Your task to perform on an android device: Go to location settings Image 0: 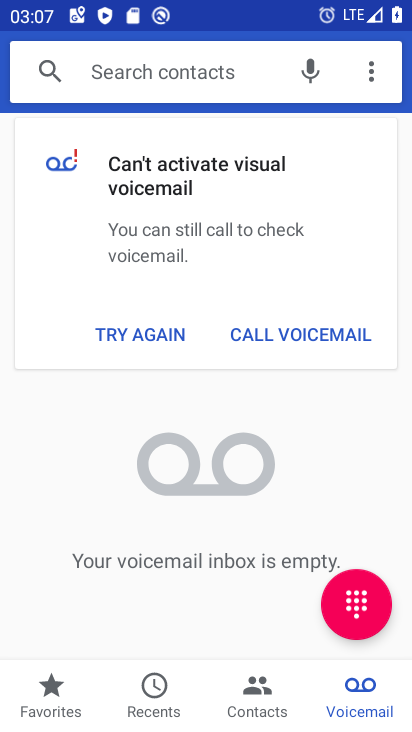
Step 0: press home button
Your task to perform on an android device: Go to location settings Image 1: 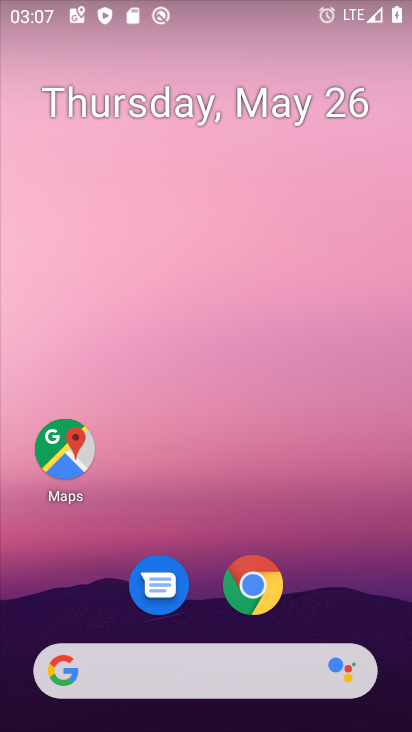
Step 1: drag from (260, 488) to (297, 55)
Your task to perform on an android device: Go to location settings Image 2: 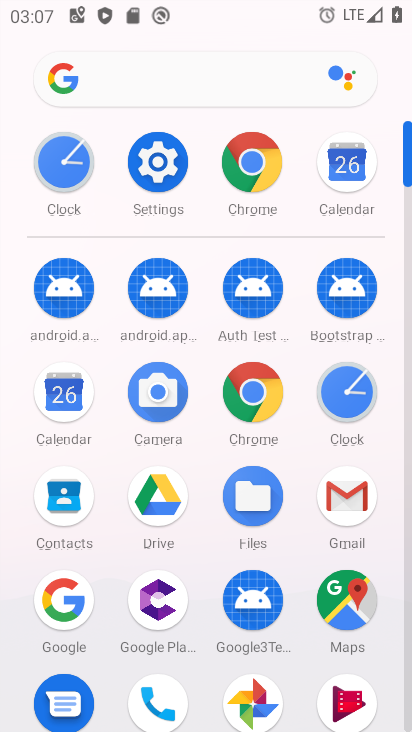
Step 2: click (155, 160)
Your task to perform on an android device: Go to location settings Image 3: 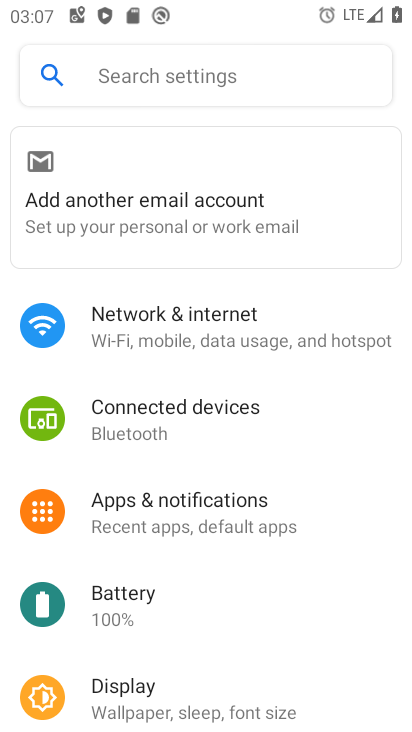
Step 3: drag from (230, 562) to (265, 264)
Your task to perform on an android device: Go to location settings Image 4: 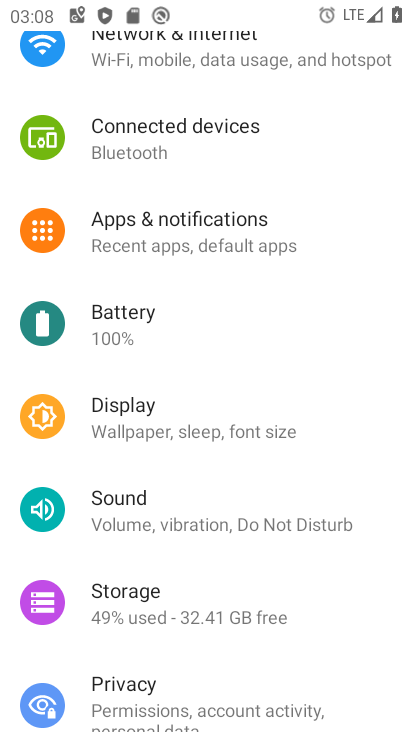
Step 4: drag from (220, 579) to (226, 201)
Your task to perform on an android device: Go to location settings Image 5: 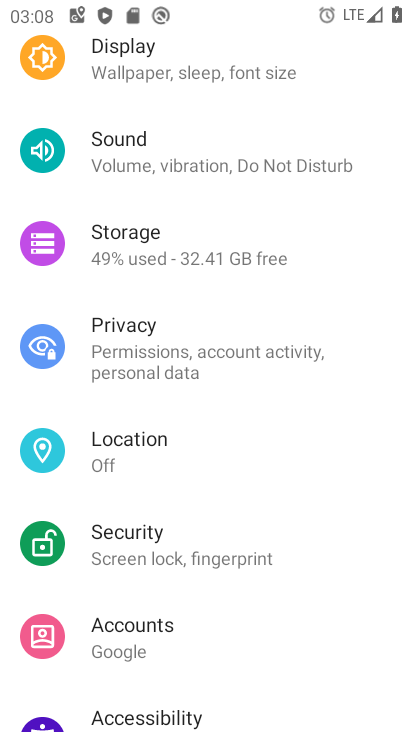
Step 5: click (190, 460)
Your task to perform on an android device: Go to location settings Image 6: 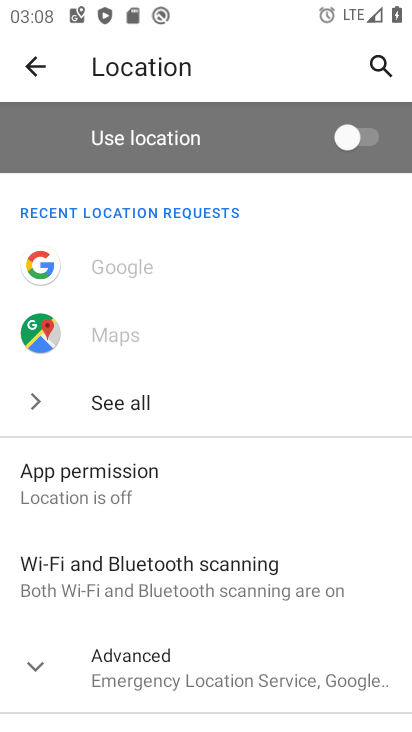
Step 6: task complete